Your task to perform on an android device: star an email in the gmail app Image 0: 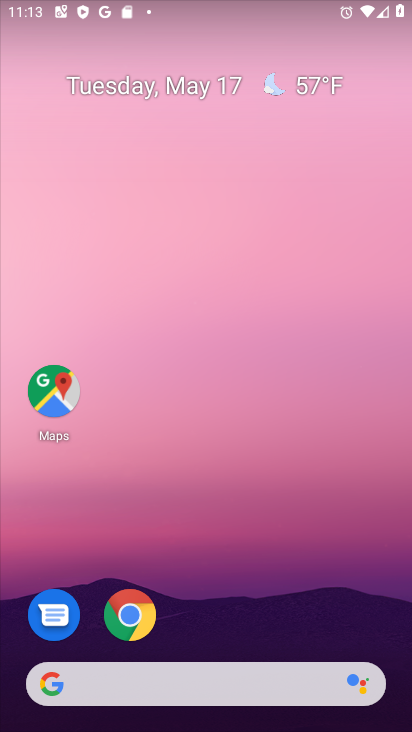
Step 0: drag from (306, 603) to (299, 155)
Your task to perform on an android device: star an email in the gmail app Image 1: 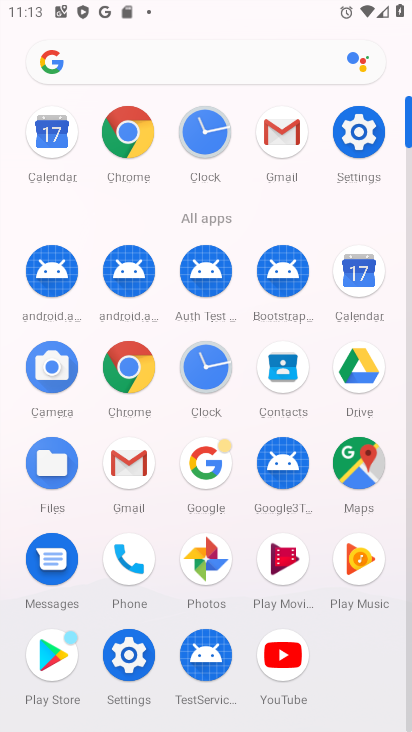
Step 1: click (278, 145)
Your task to perform on an android device: star an email in the gmail app Image 2: 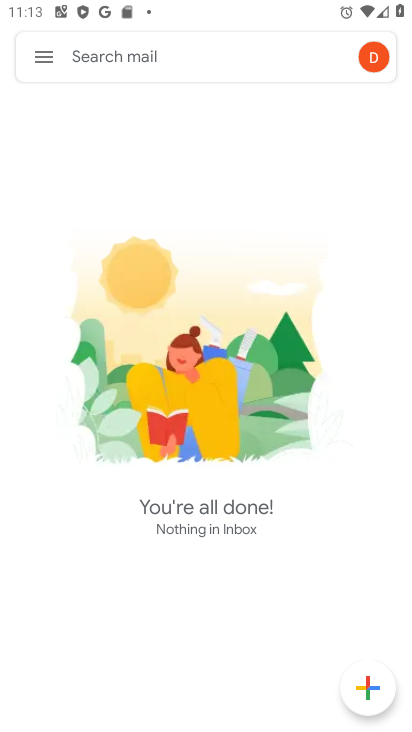
Step 2: click (39, 44)
Your task to perform on an android device: star an email in the gmail app Image 3: 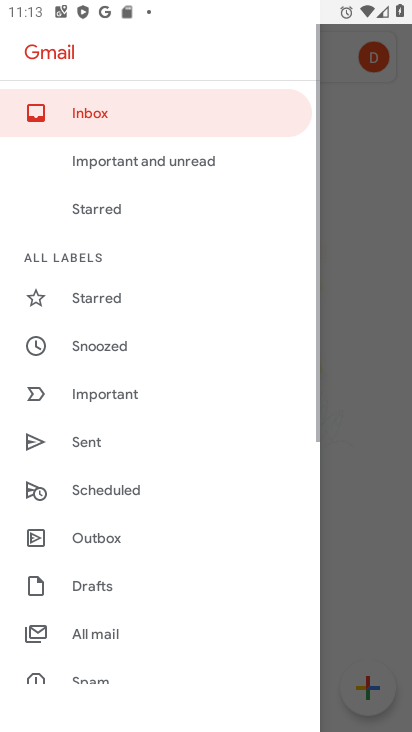
Step 3: drag from (181, 574) to (237, 292)
Your task to perform on an android device: star an email in the gmail app Image 4: 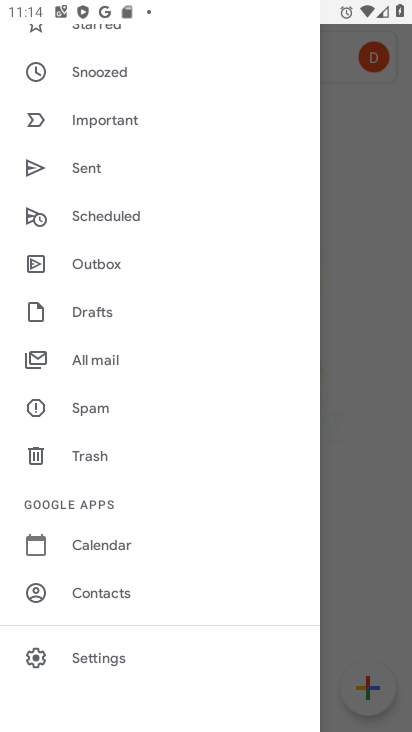
Step 4: click (110, 361)
Your task to perform on an android device: star an email in the gmail app Image 5: 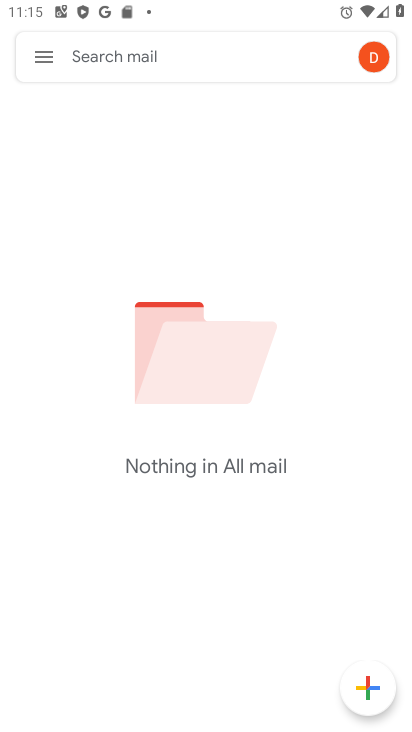
Step 5: task complete